Your task to perform on an android device: toggle show notifications on the lock screen Image 0: 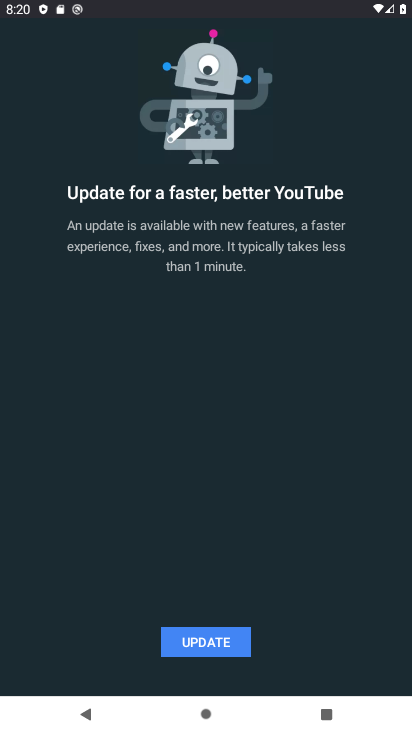
Step 0: press home button
Your task to perform on an android device: toggle show notifications on the lock screen Image 1: 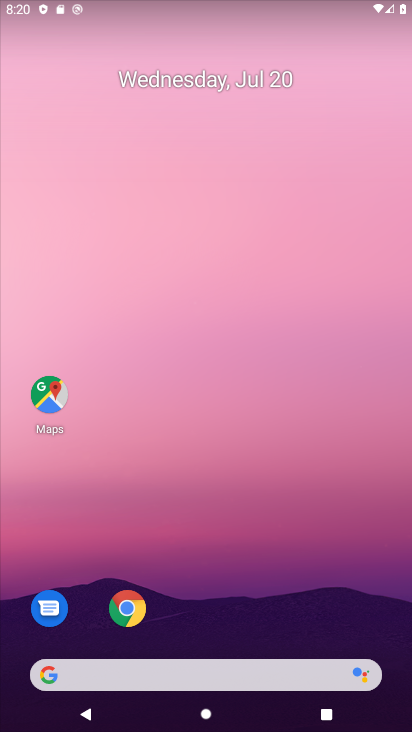
Step 1: drag from (269, 539) to (313, 40)
Your task to perform on an android device: toggle show notifications on the lock screen Image 2: 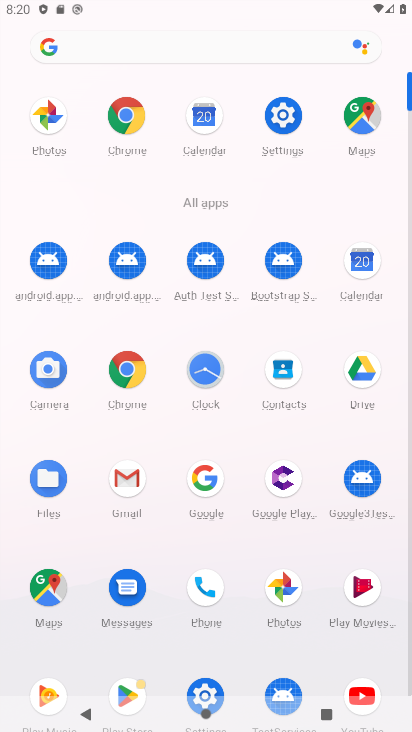
Step 2: click (287, 143)
Your task to perform on an android device: toggle show notifications on the lock screen Image 3: 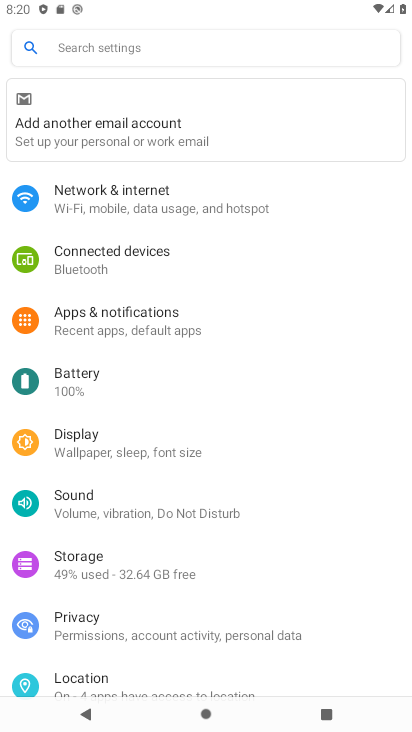
Step 3: drag from (181, 589) to (211, 196)
Your task to perform on an android device: toggle show notifications on the lock screen Image 4: 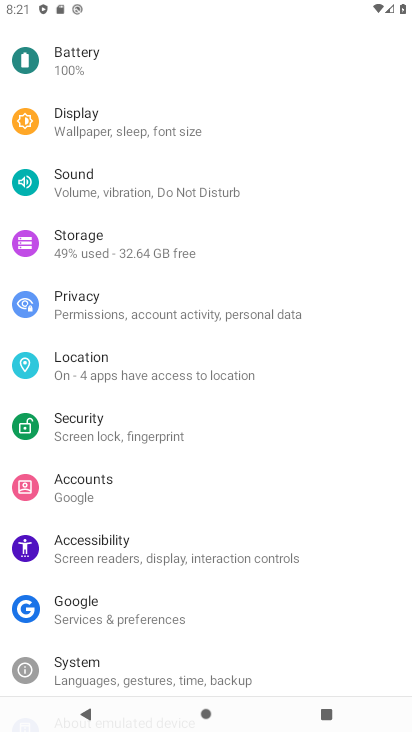
Step 4: drag from (218, 562) to (241, 218)
Your task to perform on an android device: toggle show notifications on the lock screen Image 5: 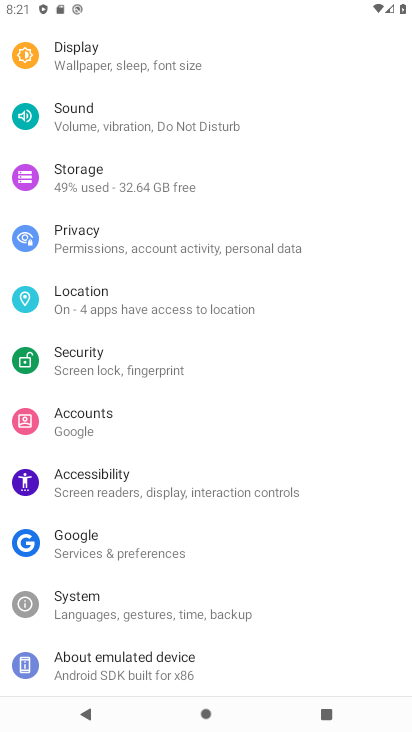
Step 5: drag from (173, 222) to (121, 596)
Your task to perform on an android device: toggle show notifications on the lock screen Image 6: 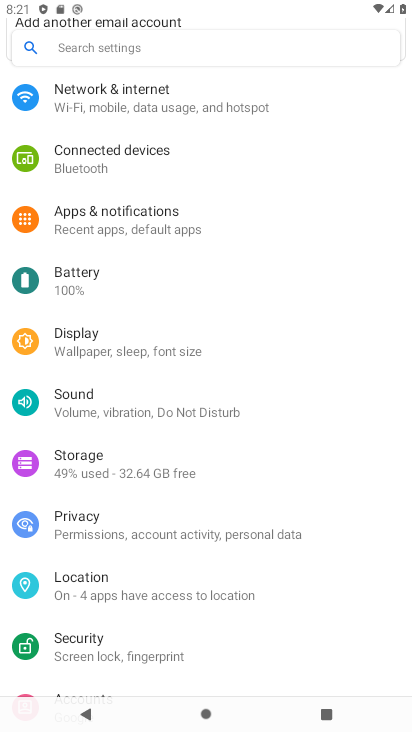
Step 6: click (135, 214)
Your task to perform on an android device: toggle show notifications on the lock screen Image 7: 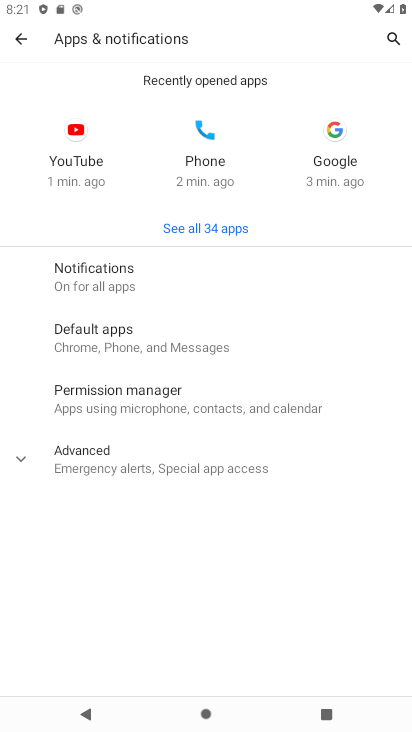
Step 7: click (103, 284)
Your task to perform on an android device: toggle show notifications on the lock screen Image 8: 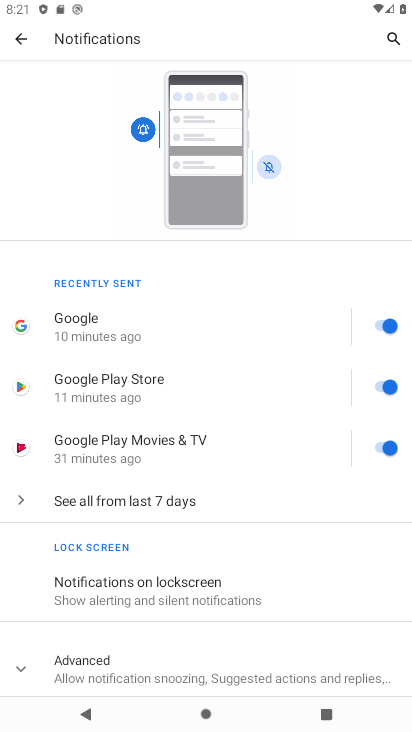
Step 8: click (133, 590)
Your task to perform on an android device: toggle show notifications on the lock screen Image 9: 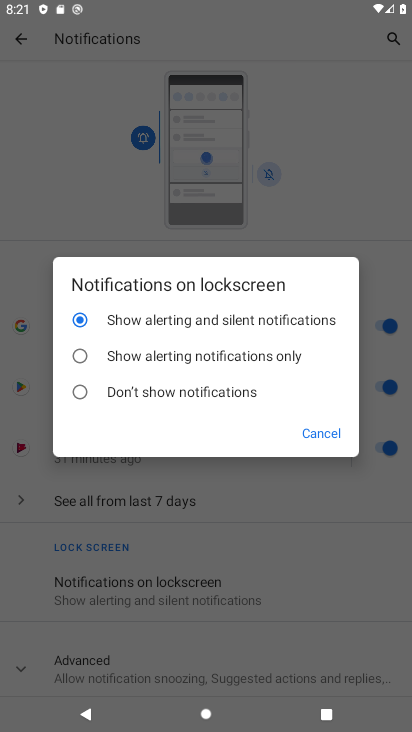
Step 9: click (128, 361)
Your task to perform on an android device: toggle show notifications on the lock screen Image 10: 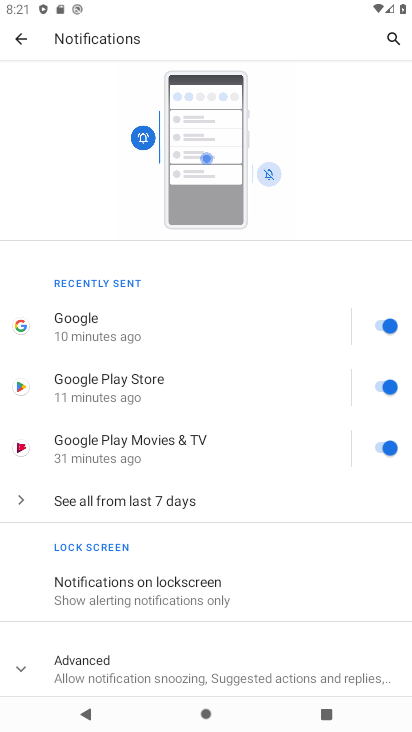
Step 10: task complete